Your task to perform on an android device: turn notification dots off Image 0: 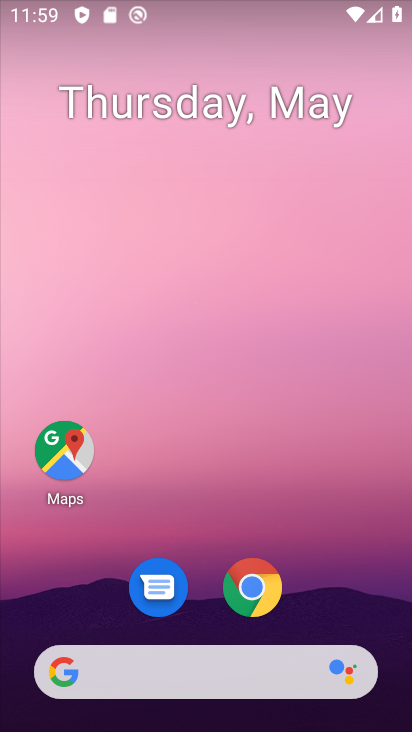
Step 0: drag from (194, 635) to (255, 86)
Your task to perform on an android device: turn notification dots off Image 1: 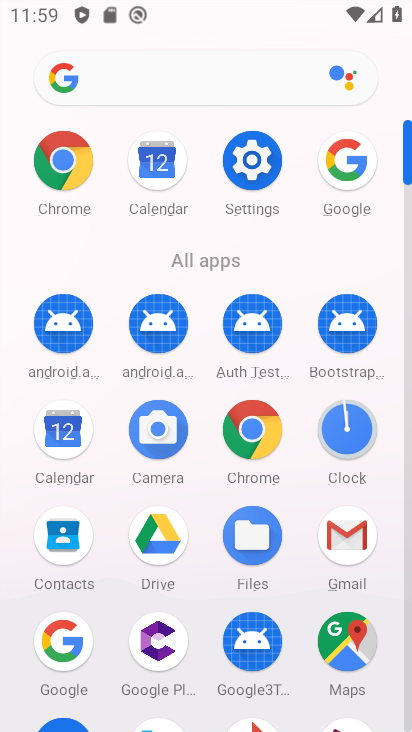
Step 1: click (252, 172)
Your task to perform on an android device: turn notification dots off Image 2: 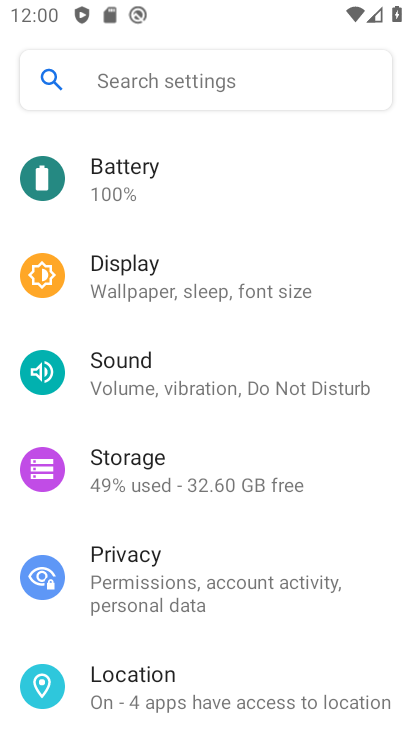
Step 2: drag from (252, 172) to (260, 710)
Your task to perform on an android device: turn notification dots off Image 3: 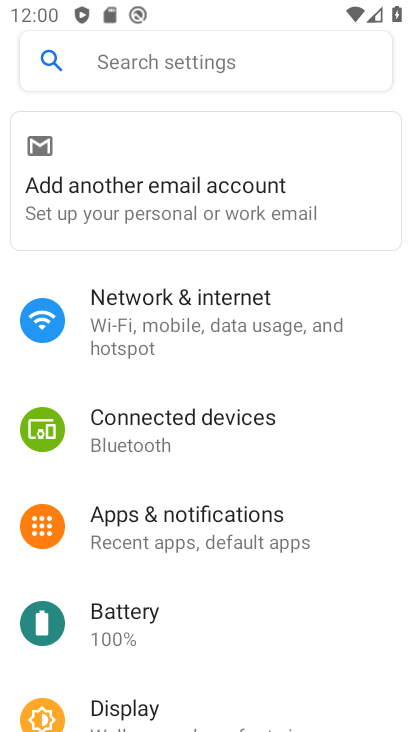
Step 3: click (196, 539)
Your task to perform on an android device: turn notification dots off Image 4: 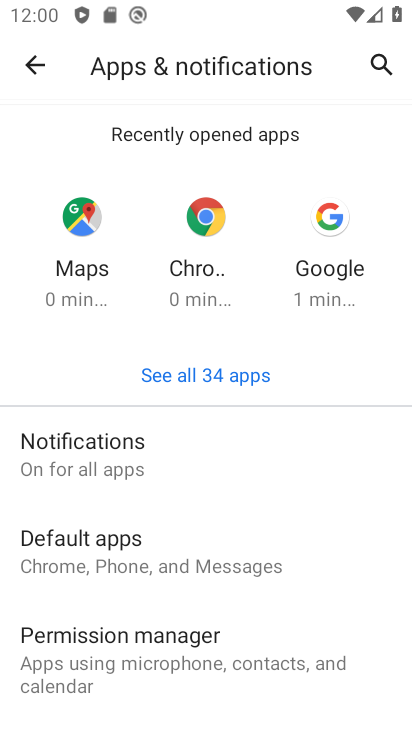
Step 4: click (130, 437)
Your task to perform on an android device: turn notification dots off Image 5: 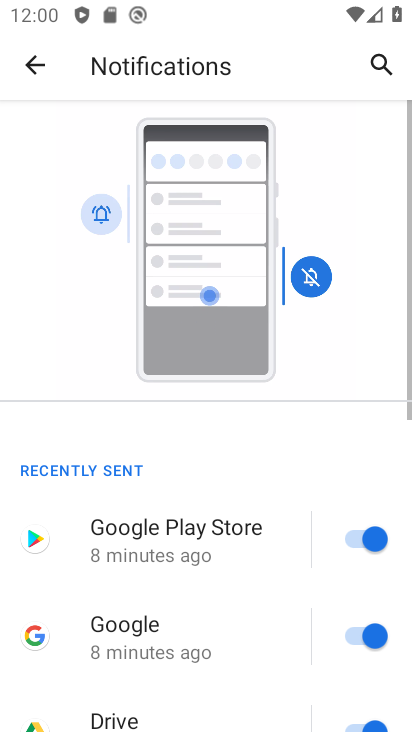
Step 5: drag from (133, 651) to (235, 153)
Your task to perform on an android device: turn notification dots off Image 6: 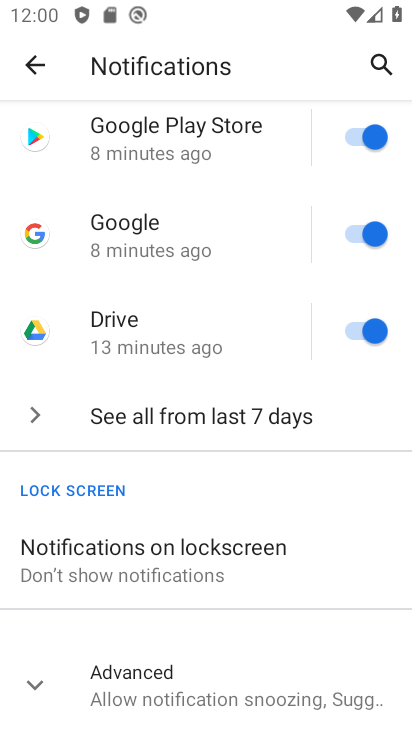
Step 6: click (185, 684)
Your task to perform on an android device: turn notification dots off Image 7: 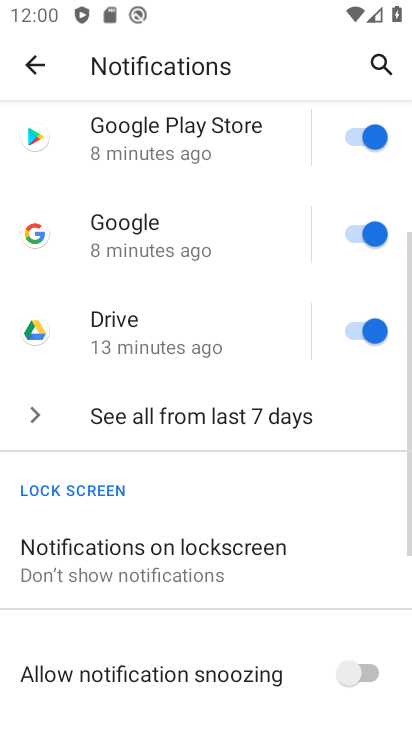
Step 7: drag from (130, 627) to (239, 226)
Your task to perform on an android device: turn notification dots off Image 8: 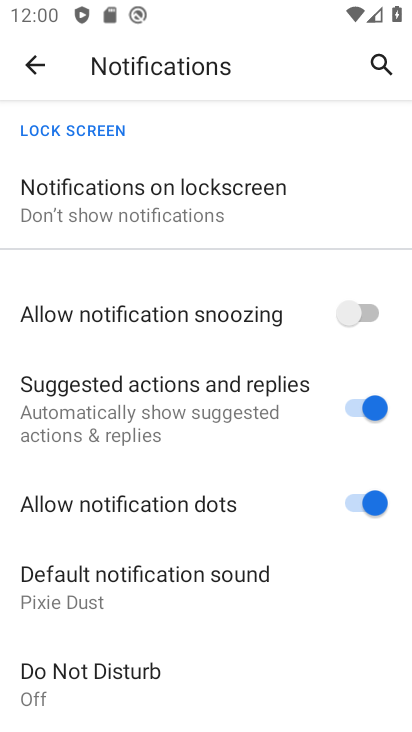
Step 8: click (369, 502)
Your task to perform on an android device: turn notification dots off Image 9: 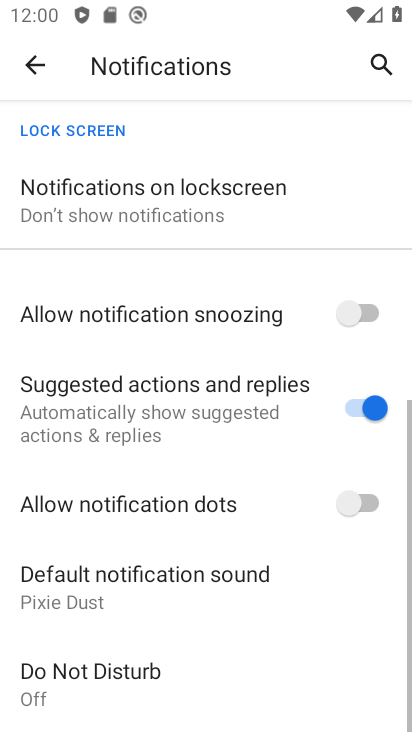
Step 9: task complete